Your task to perform on an android device: Open the map Image 0: 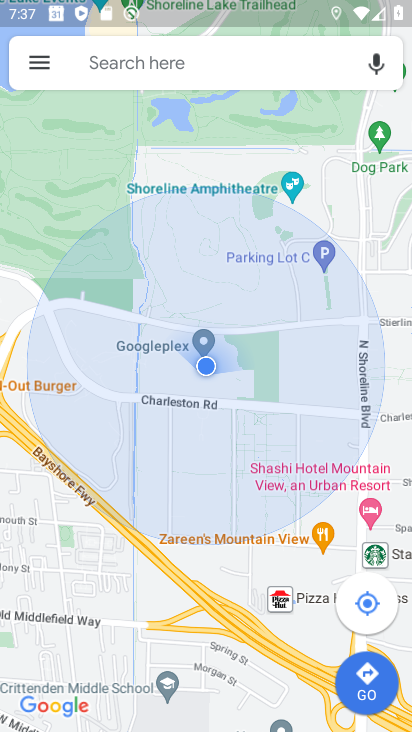
Step 0: task complete